Your task to perform on an android device: Go to location settings Image 0: 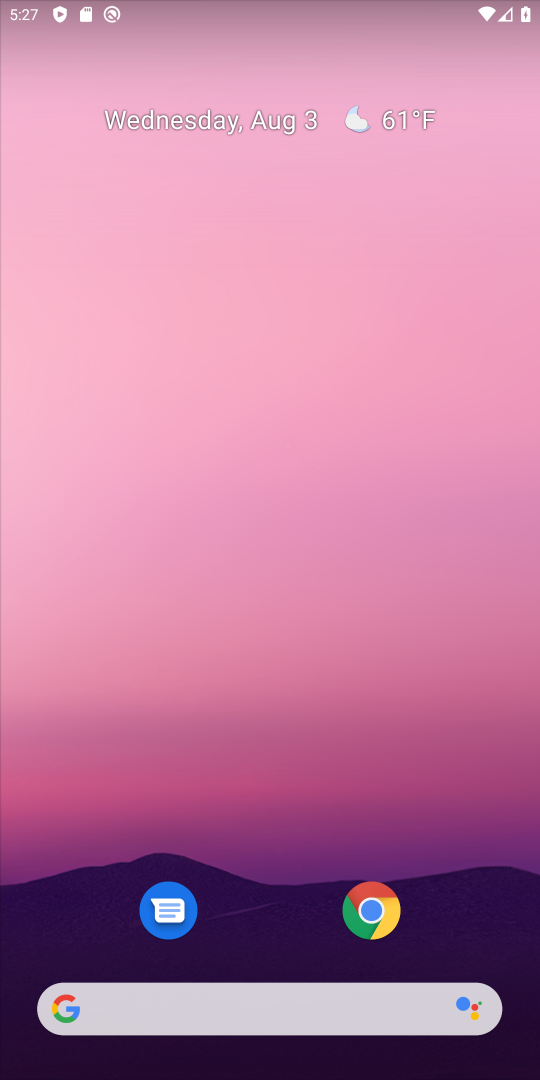
Step 0: drag from (209, 967) to (308, 25)
Your task to perform on an android device: Go to location settings Image 1: 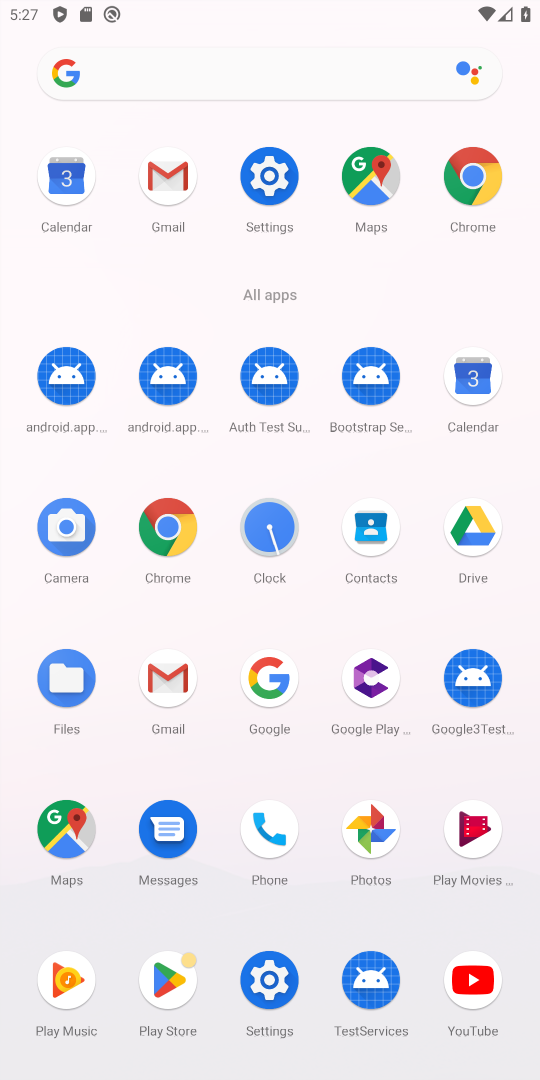
Step 1: click (249, 983)
Your task to perform on an android device: Go to location settings Image 2: 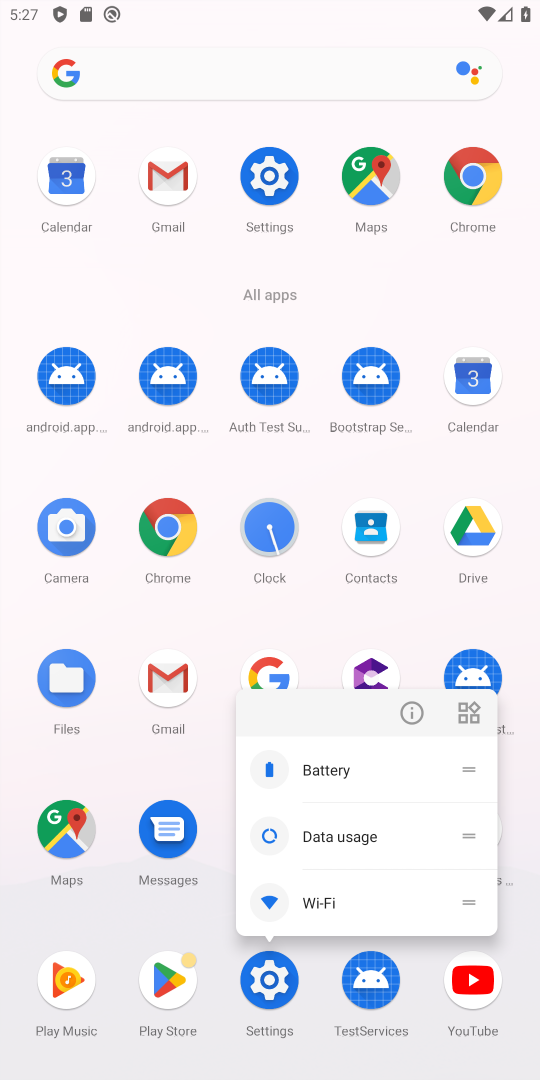
Step 2: click (264, 981)
Your task to perform on an android device: Go to location settings Image 3: 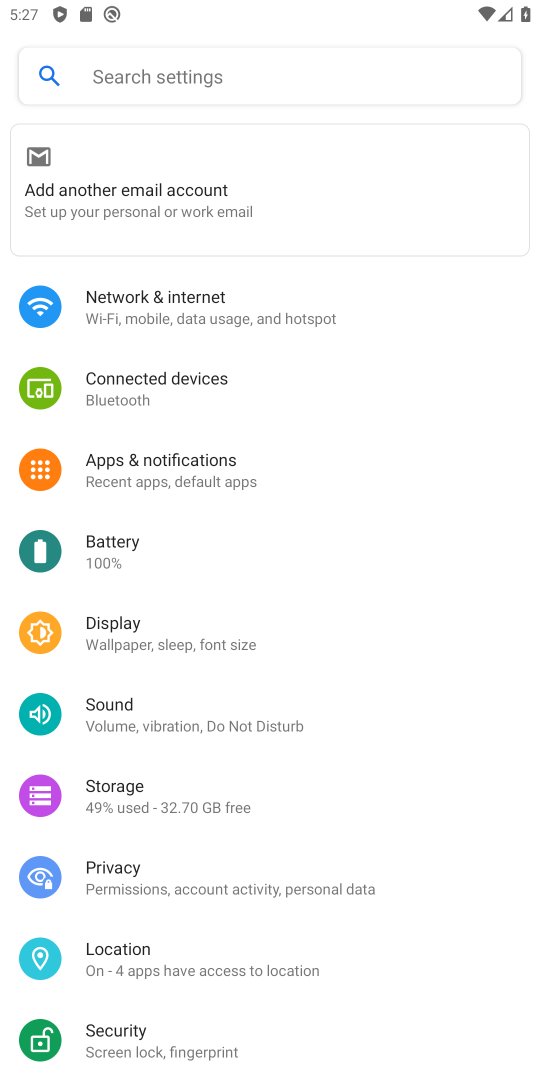
Step 3: drag from (309, 960) to (368, 335)
Your task to perform on an android device: Go to location settings Image 4: 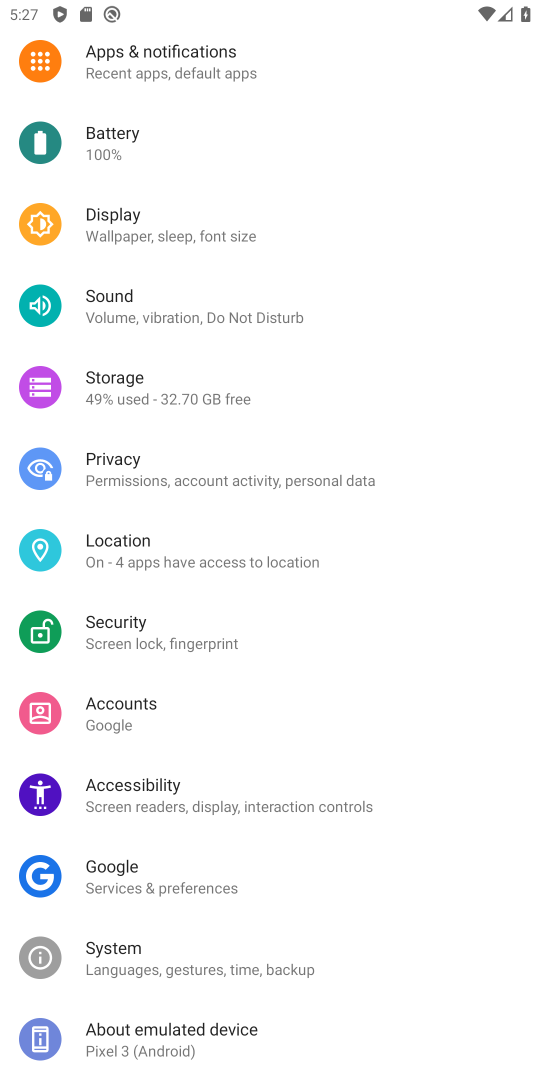
Step 4: click (187, 549)
Your task to perform on an android device: Go to location settings Image 5: 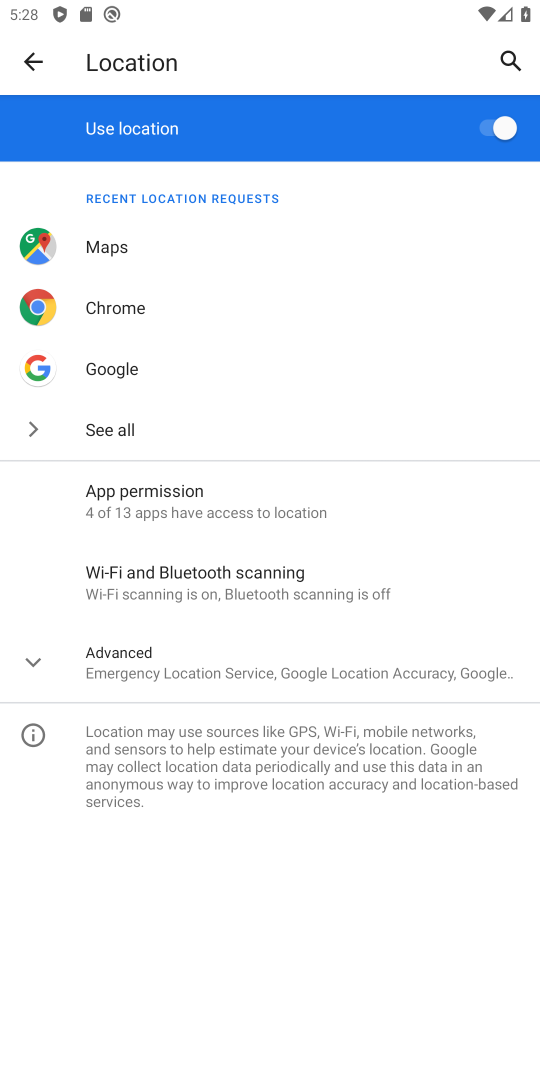
Step 5: task complete